Your task to perform on an android device: See recent photos Image 0: 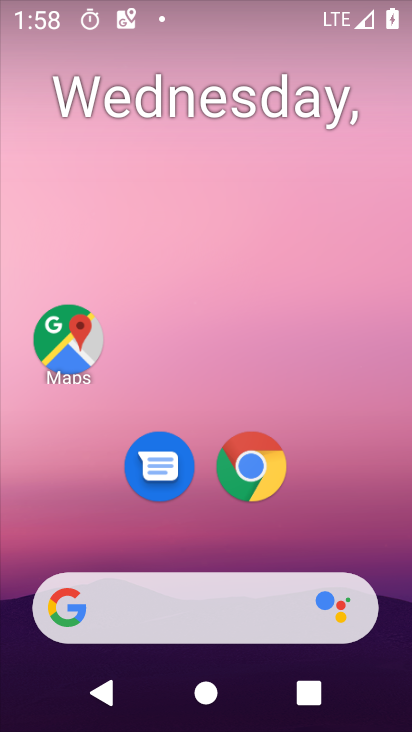
Step 0: drag from (305, 485) to (261, 149)
Your task to perform on an android device: See recent photos Image 1: 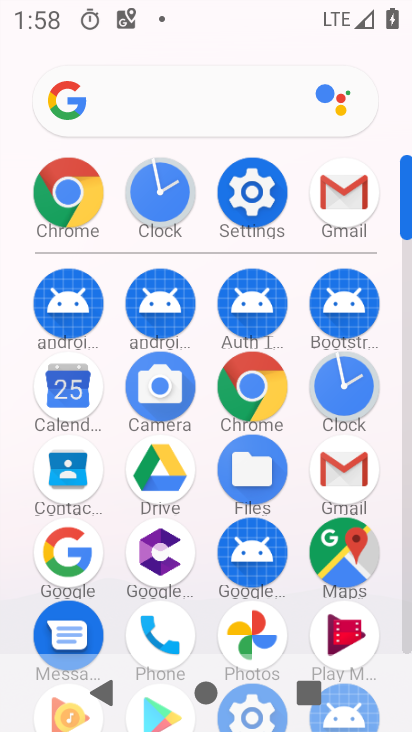
Step 1: click (244, 641)
Your task to perform on an android device: See recent photos Image 2: 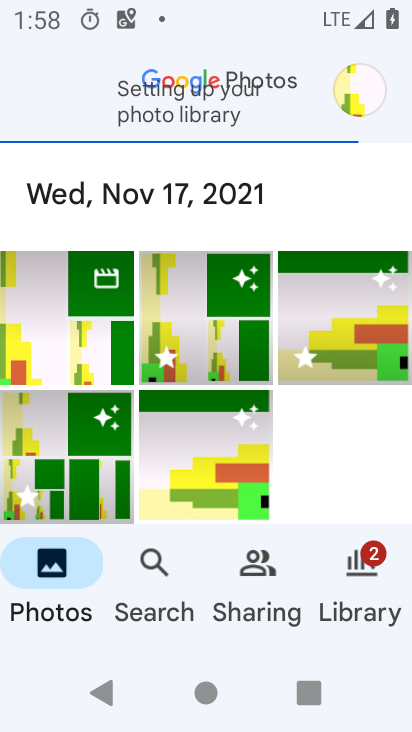
Step 2: task complete